Your task to perform on an android device: Search for a custom-made wallet on Etsy Image 0: 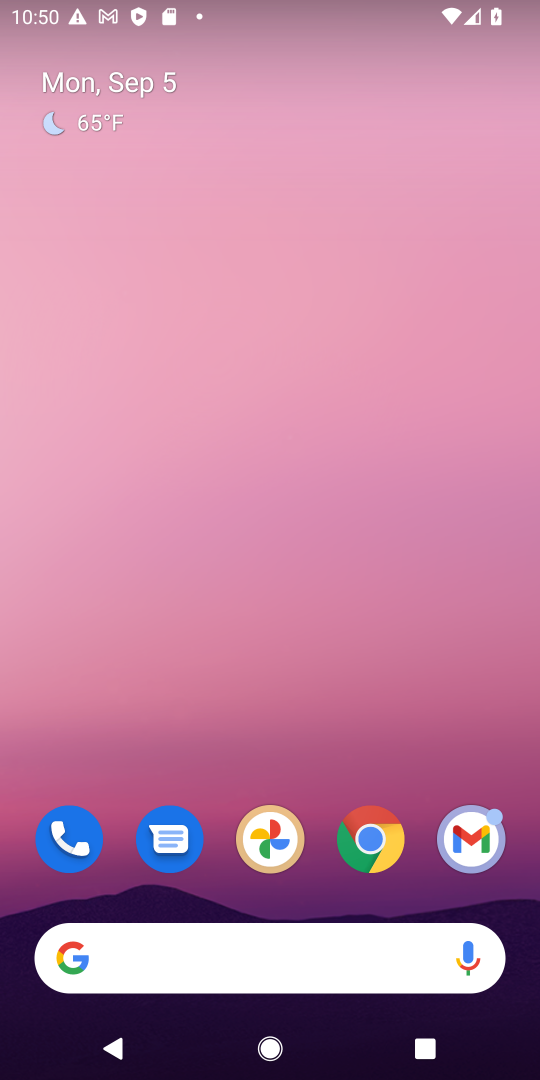
Step 0: drag from (252, 966) to (342, 216)
Your task to perform on an android device: Search for a custom-made wallet on Etsy Image 1: 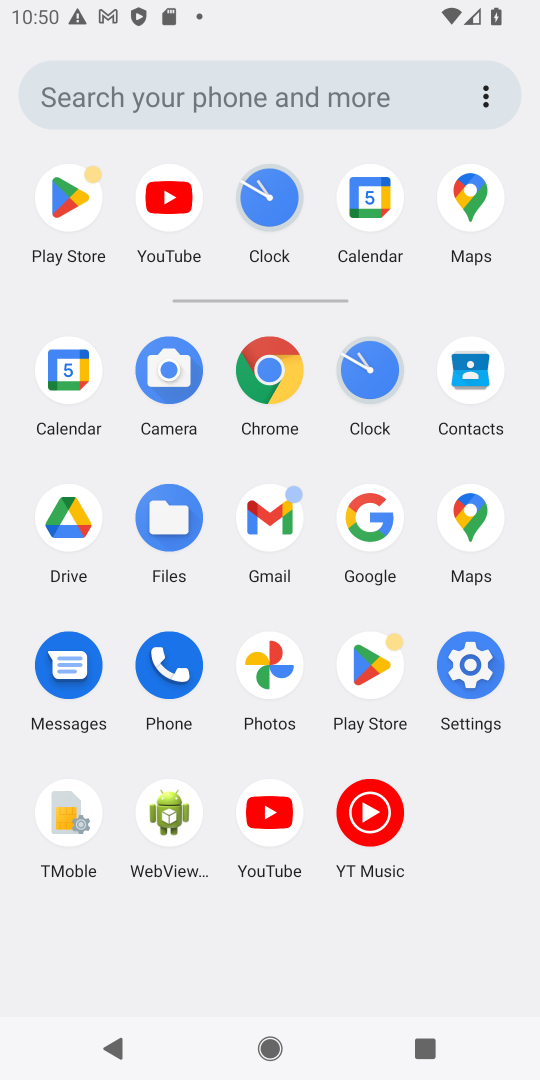
Step 1: click (379, 529)
Your task to perform on an android device: Search for a custom-made wallet on Etsy Image 2: 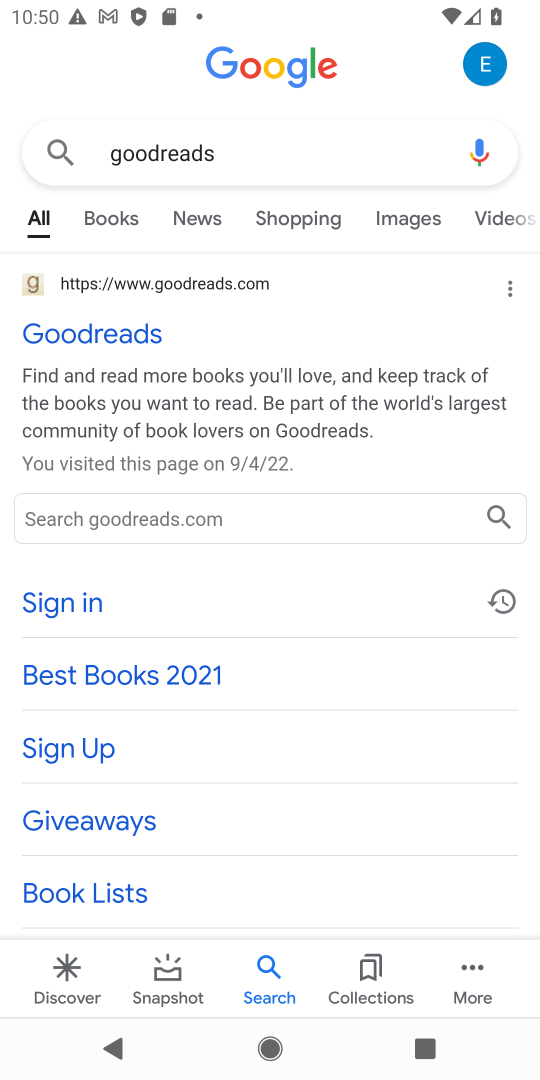
Step 2: click (237, 149)
Your task to perform on an android device: Search for a custom-made wallet on Etsy Image 3: 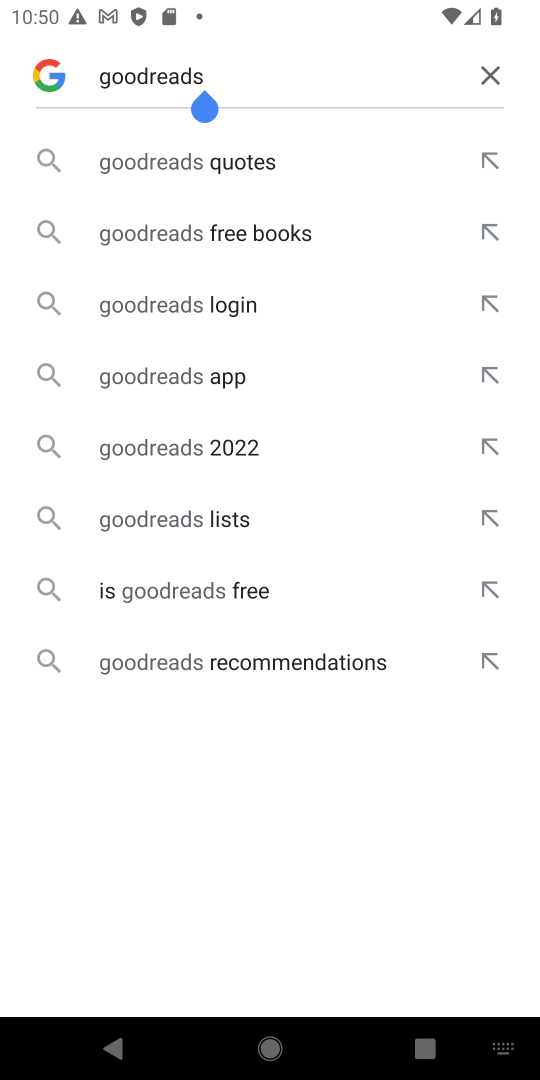
Step 3: click (492, 72)
Your task to perform on an android device: Search for a custom-made wallet on Etsy Image 4: 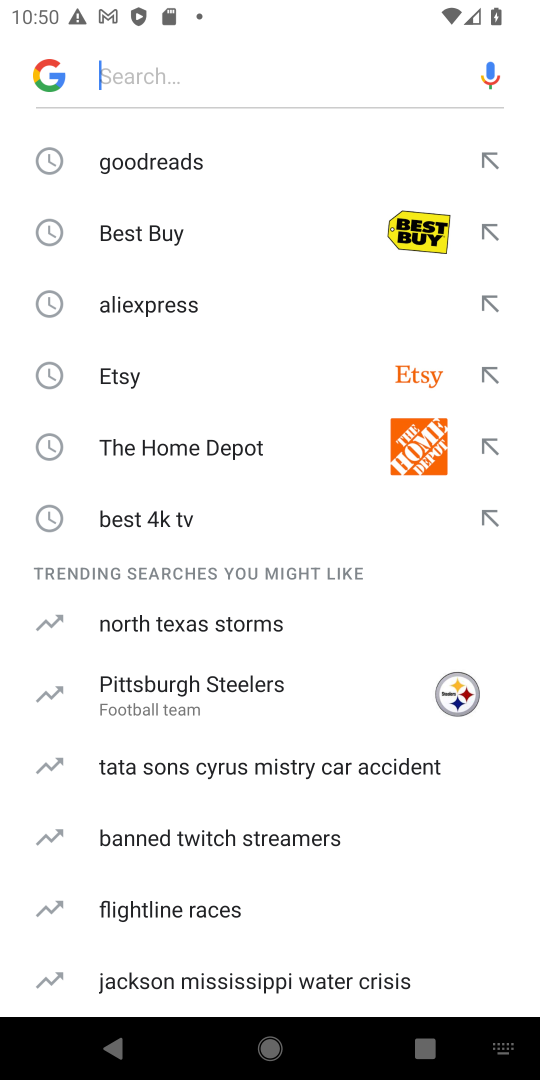
Step 4: click (419, 373)
Your task to perform on an android device: Search for a custom-made wallet on Etsy Image 5: 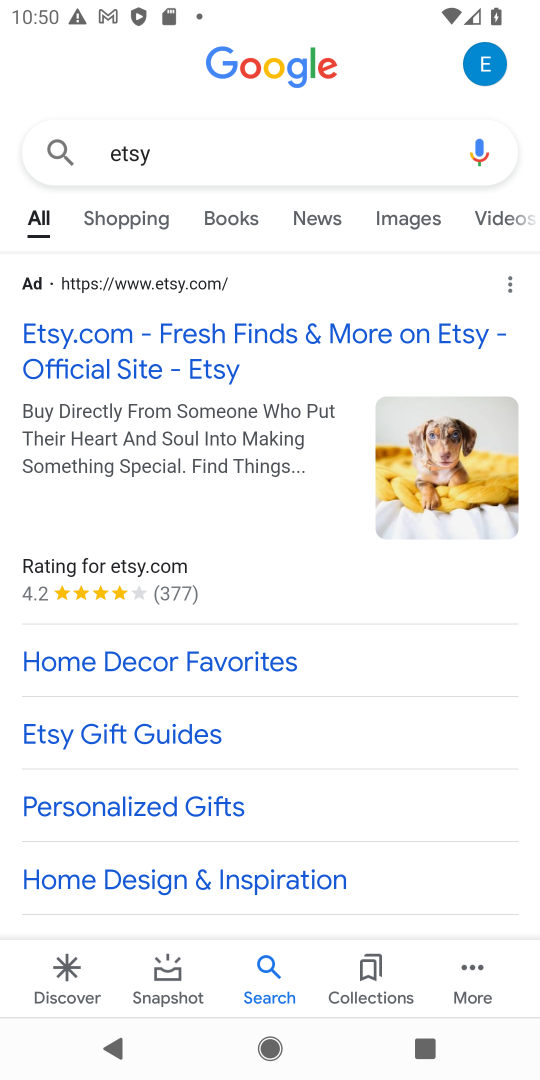
Step 5: click (225, 349)
Your task to perform on an android device: Search for a custom-made wallet on Etsy Image 6: 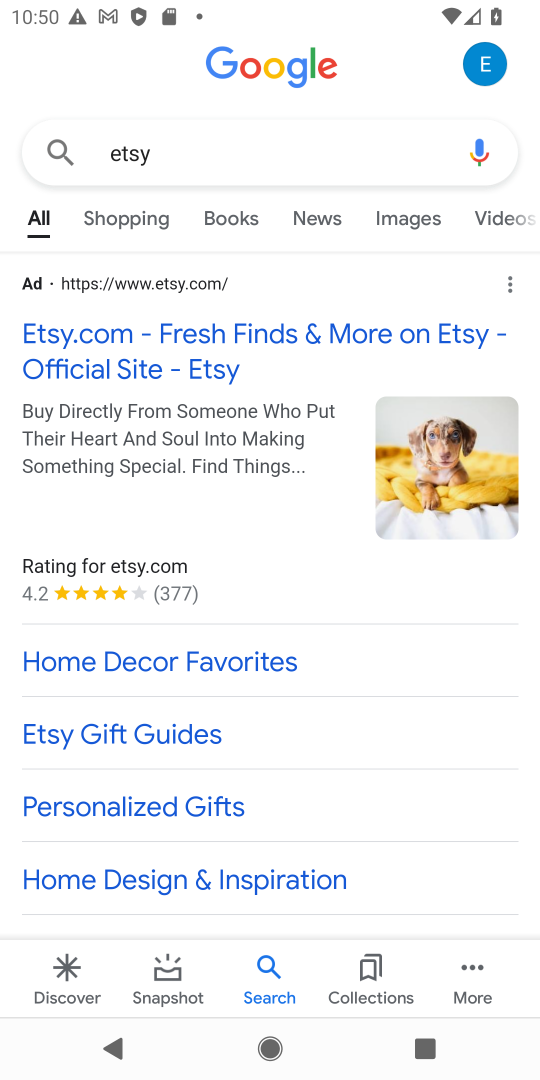
Step 6: click (130, 340)
Your task to perform on an android device: Search for a custom-made wallet on Etsy Image 7: 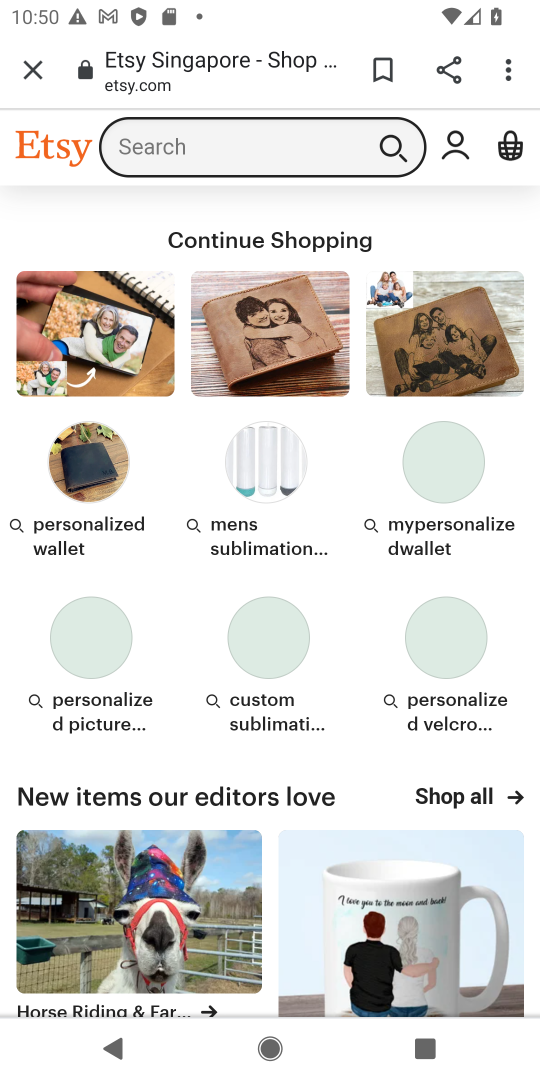
Step 7: click (398, 145)
Your task to perform on an android device: Search for a custom-made wallet on Etsy Image 8: 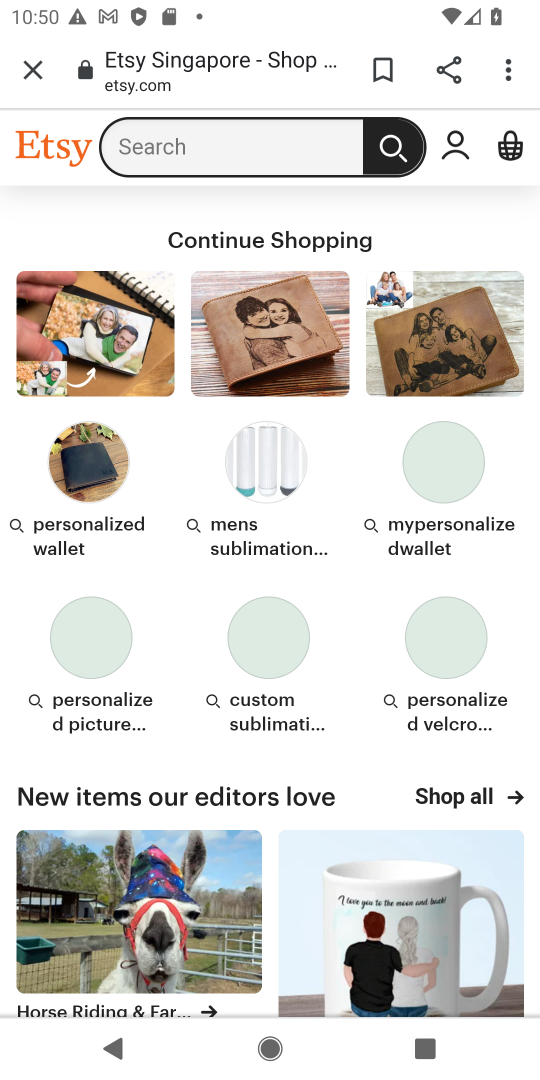
Step 8: click (165, 137)
Your task to perform on an android device: Search for a custom-made wallet on Etsy Image 9: 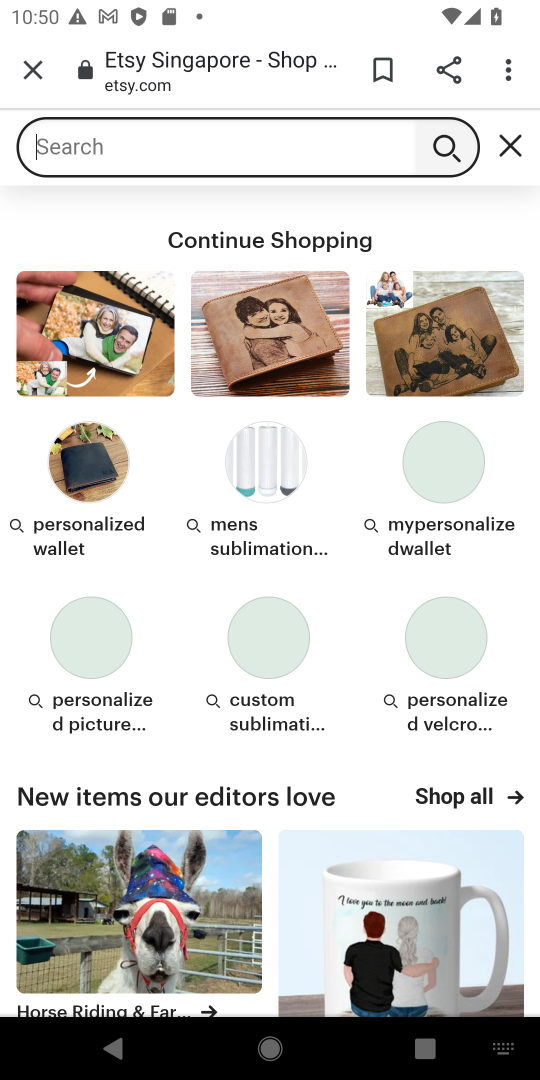
Step 9: type "custom-made wallet"
Your task to perform on an android device: Search for a custom-made wallet on Etsy Image 10: 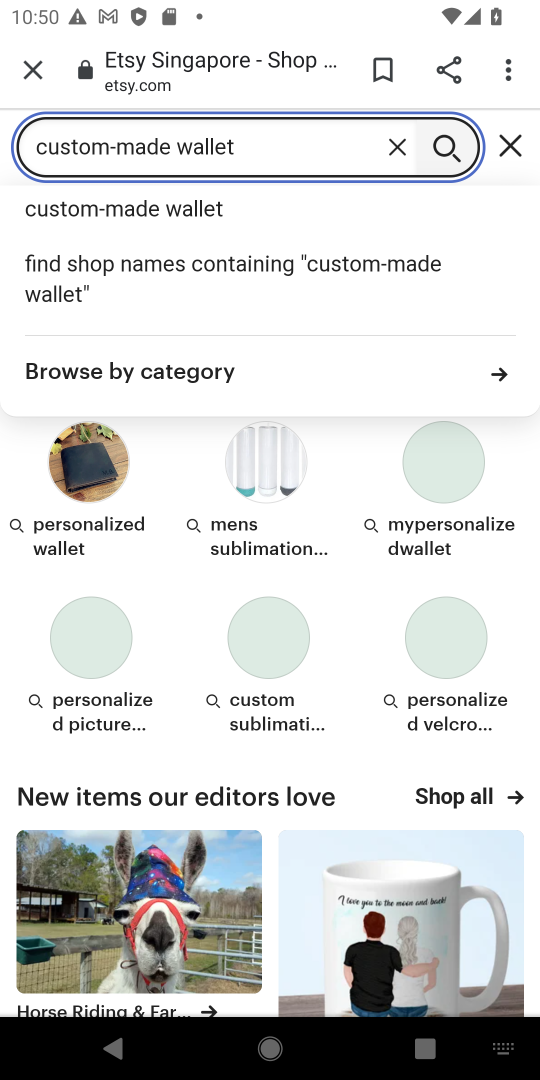
Step 10: click (25, 226)
Your task to perform on an android device: Search for a custom-made wallet on Etsy Image 11: 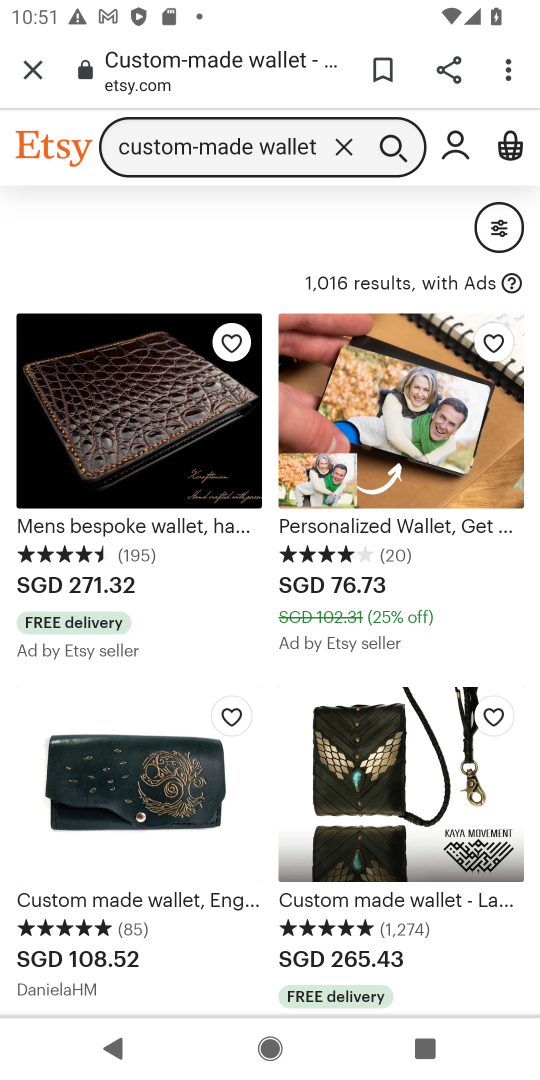
Step 11: task complete